Your task to perform on an android device: Search for pizza restaurants on Maps Image 0: 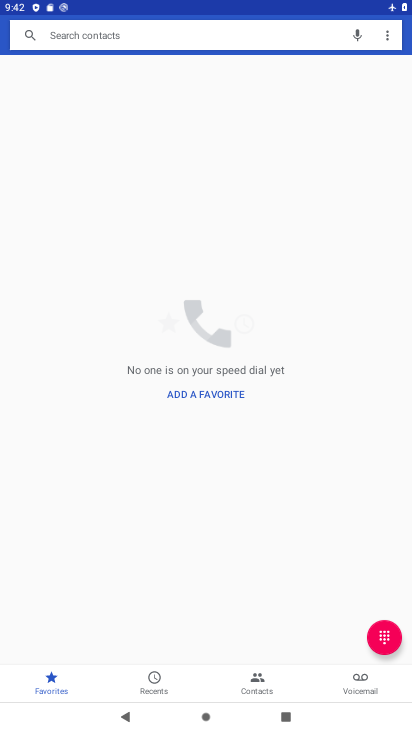
Step 0: press home button
Your task to perform on an android device: Search for pizza restaurants on Maps Image 1: 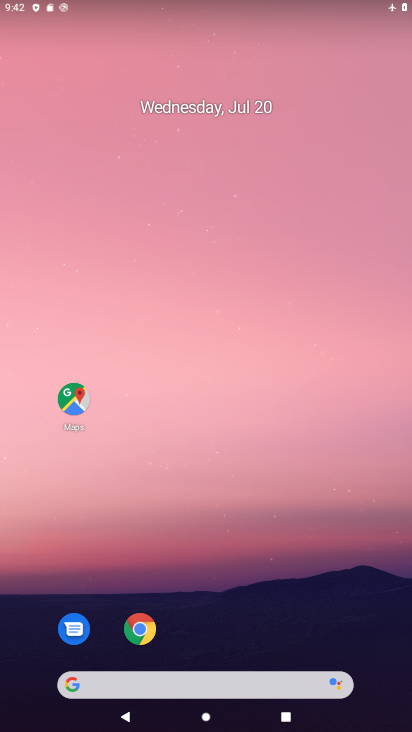
Step 1: drag from (231, 608) to (172, 21)
Your task to perform on an android device: Search for pizza restaurants on Maps Image 2: 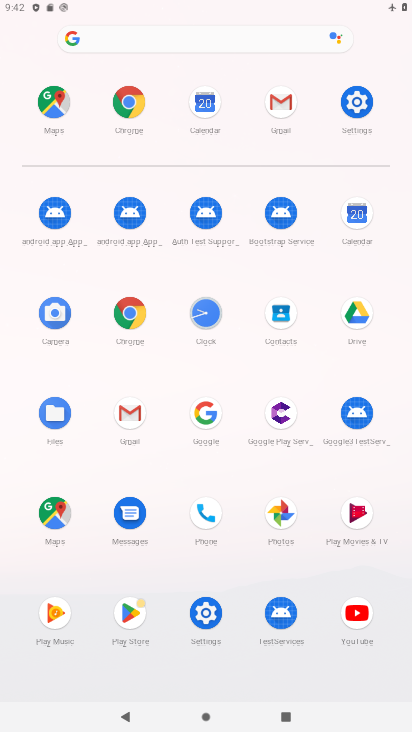
Step 2: click (44, 90)
Your task to perform on an android device: Search for pizza restaurants on Maps Image 3: 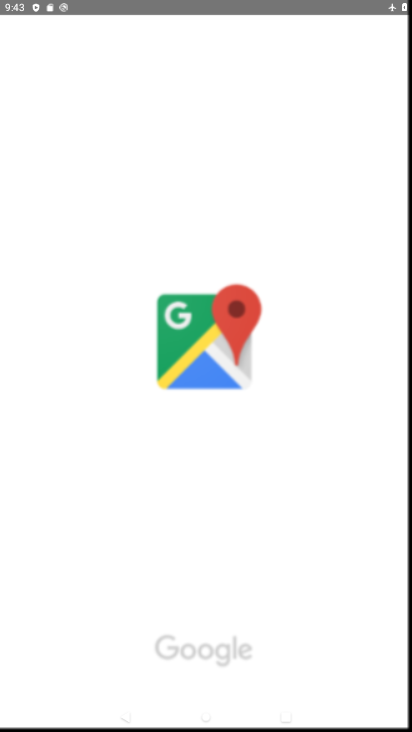
Step 3: task complete